Your task to perform on an android device: open a bookmark in the chrome app Image 0: 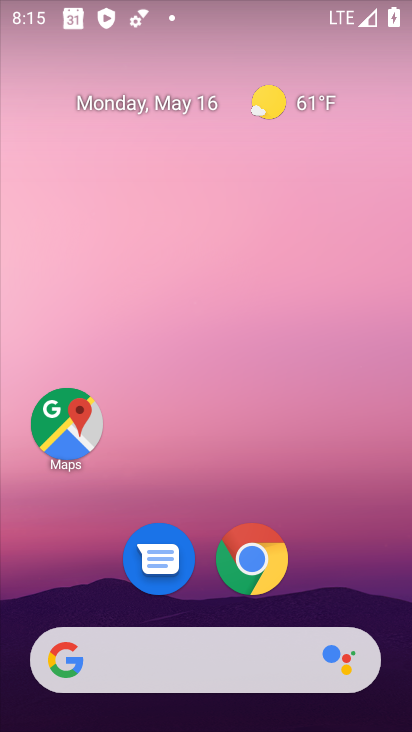
Step 0: drag from (296, 291) to (290, 578)
Your task to perform on an android device: open a bookmark in the chrome app Image 1: 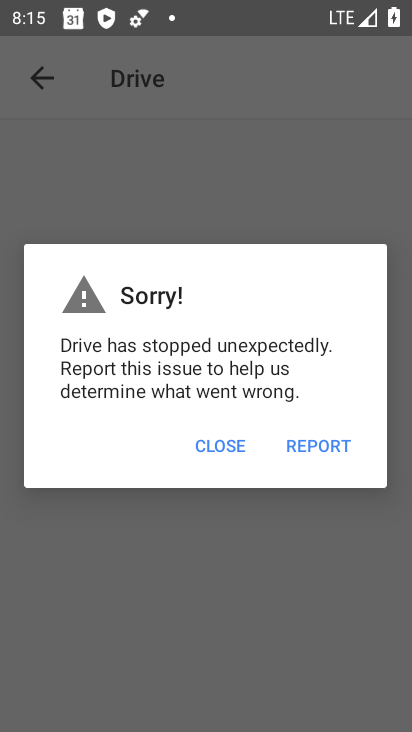
Step 1: press back button
Your task to perform on an android device: open a bookmark in the chrome app Image 2: 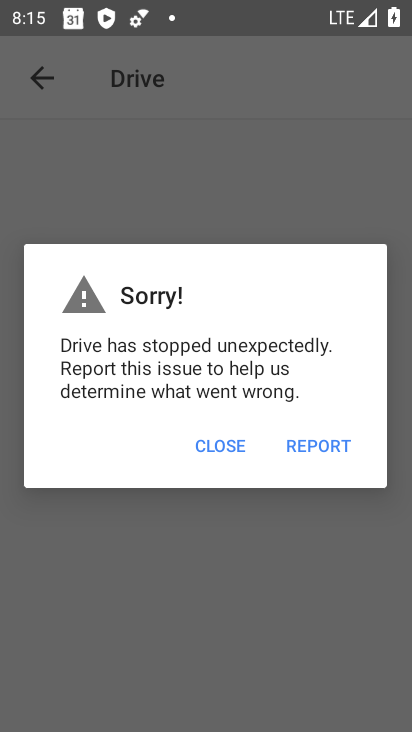
Step 2: press home button
Your task to perform on an android device: open a bookmark in the chrome app Image 3: 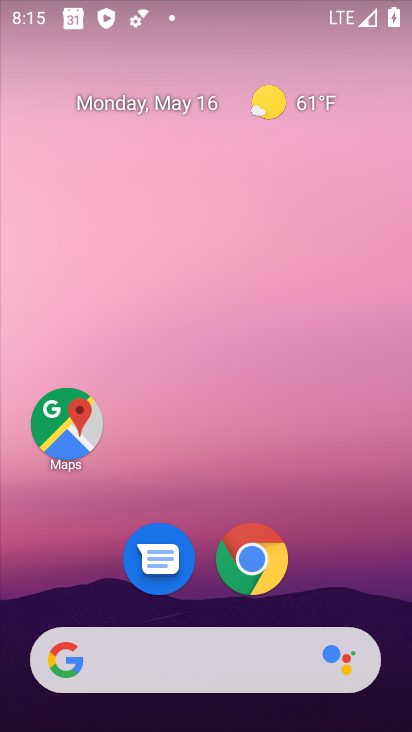
Step 3: click (238, 556)
Your task to perform on an android device: open a bookmark in the chrome app Image 4: 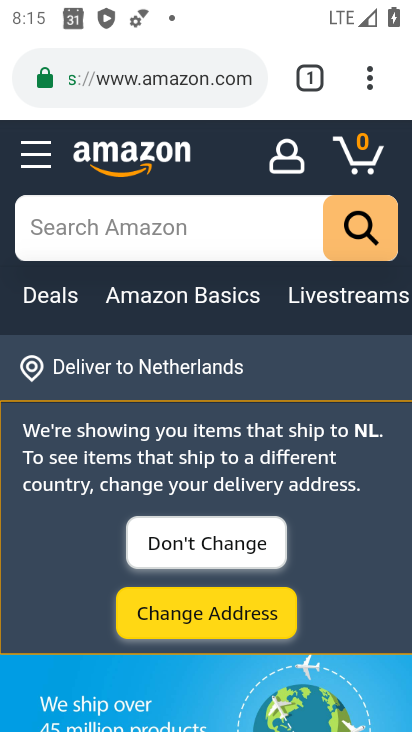
Step 4: drag from (373, 78) to (106, 295)
Your task to perform on an android device: open a bookmark in the chrome app Image 5: 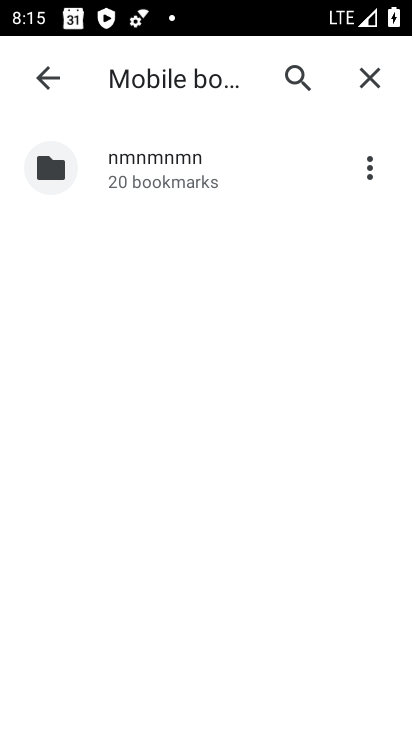
Step 5: click (184, 175)
Your task to perform on an android device: open a bookmark in the chrome app Image 6: 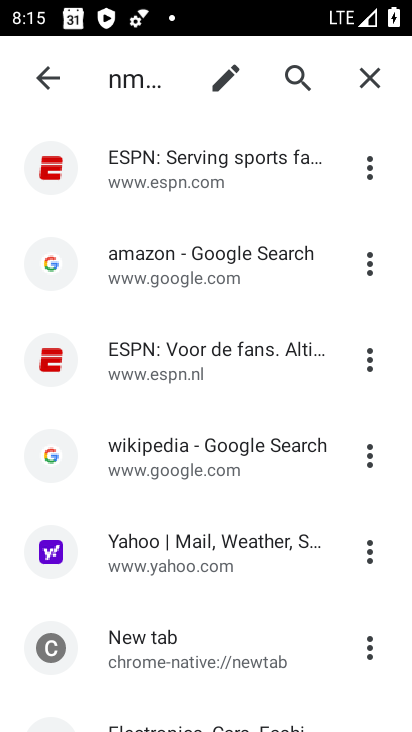
Step 6: click (174, 170)
Your task to perform on an android device: open a bookmark in the chrome app Image 7: 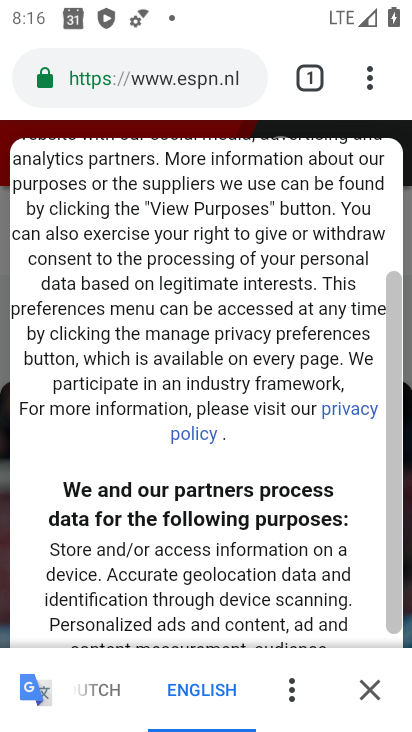
Step 7: task complete